Your task to perform on an android device: Empty the shopping cart on newegg. Add "rayovac triple a" to the cart on newegg Image 0: 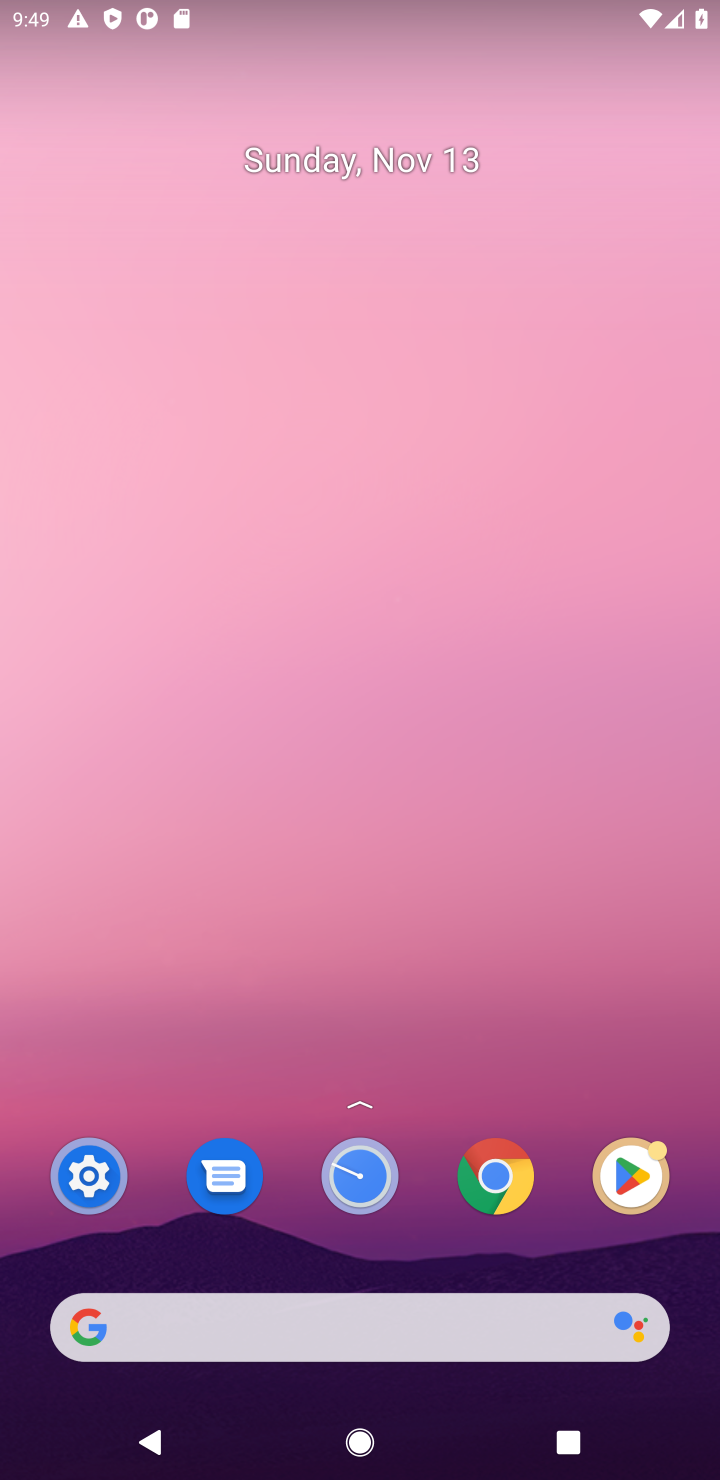
Step 0: press home button
Your task to perform on an android device: Empty the shopping cart on newegg. Add "rayovac triple a" to the cart on newegg Image 1: 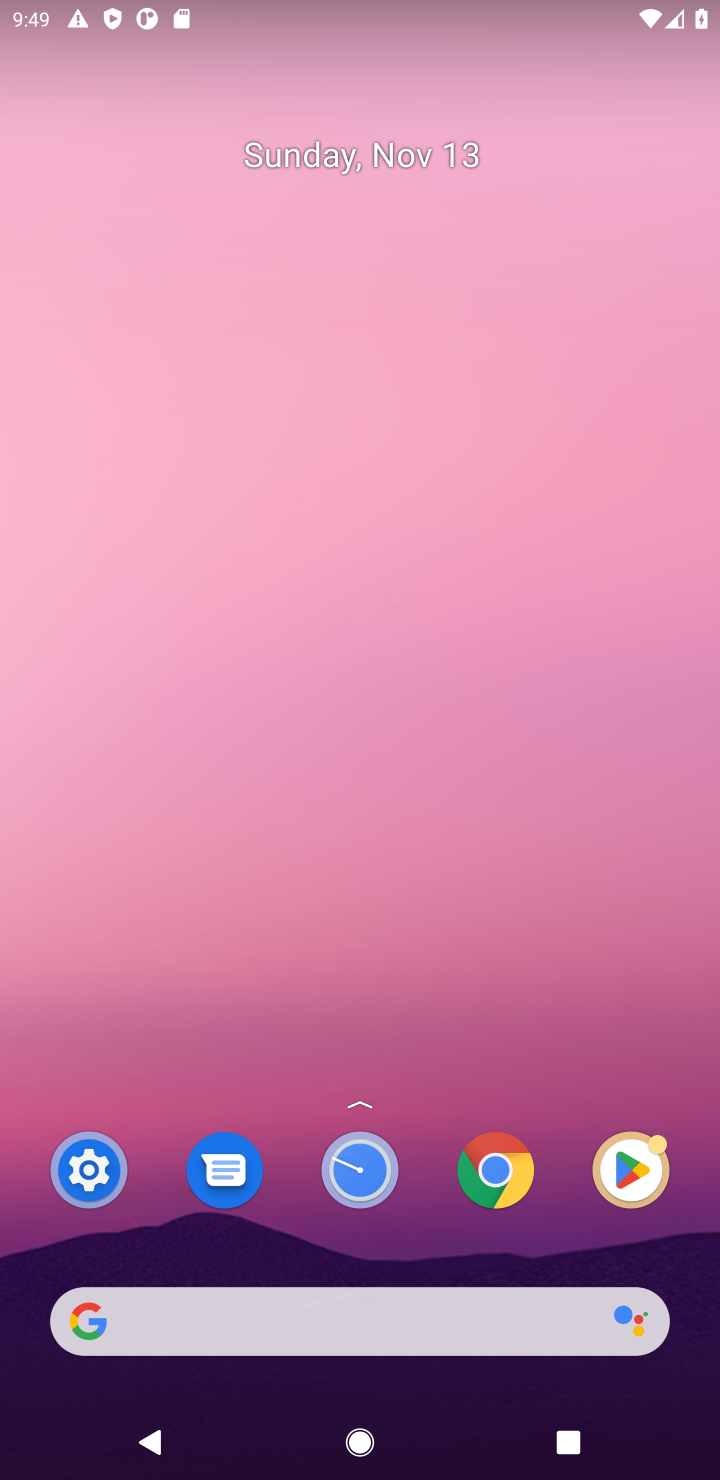
Step 1: click (241, 1337)
Your task to perform on an android device: Empty the shopping cart on newegg. Add "rayovac triple a" to the cart on newegg Image 2: 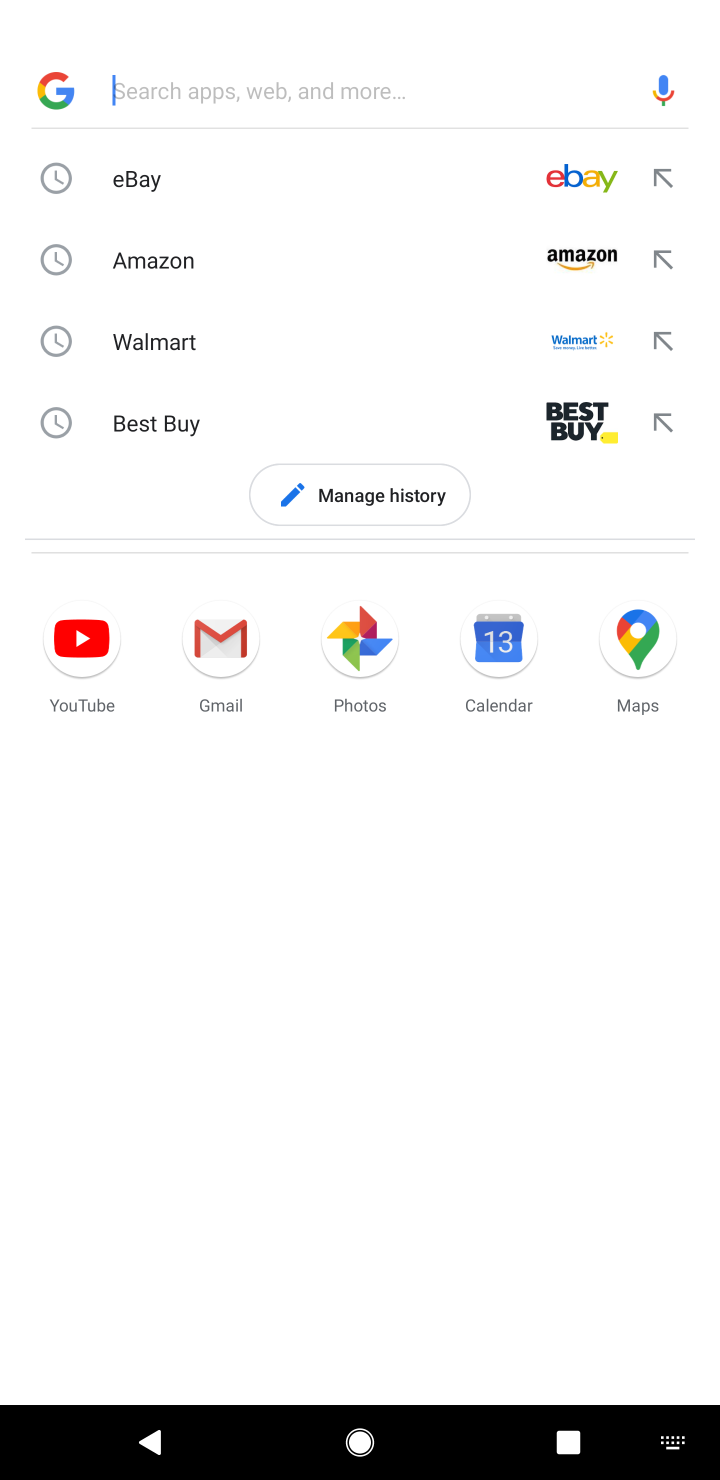
Step 2: type "newegg"
Your task to perform on an android device: Empty the shopping cart on newegg. Add "rayovac triple a" to the cart on newegg Image 3: 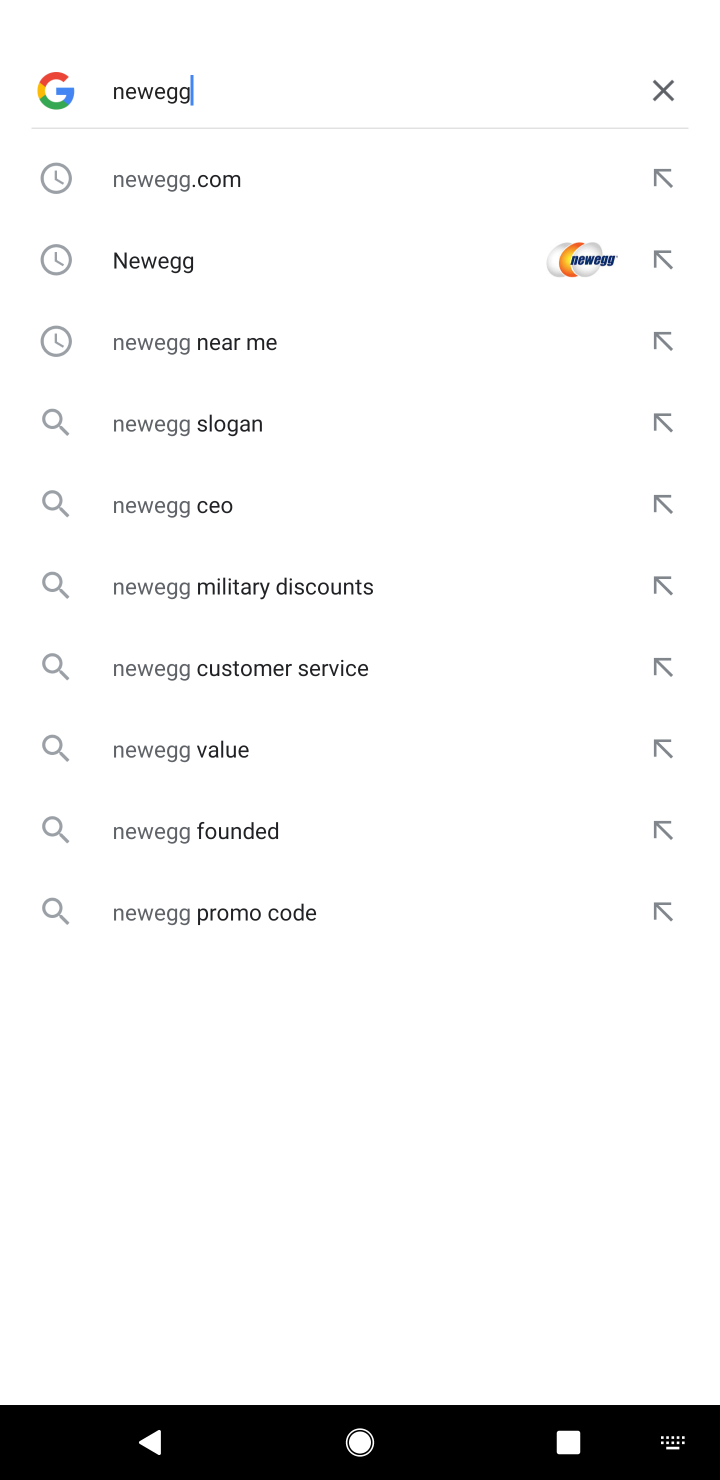
Step 3: click (273, 249)
Your task to perform on an android device: Empty the shopping cart on newegg. Add "rayovac triple a" to the cart on newegg Image 4: 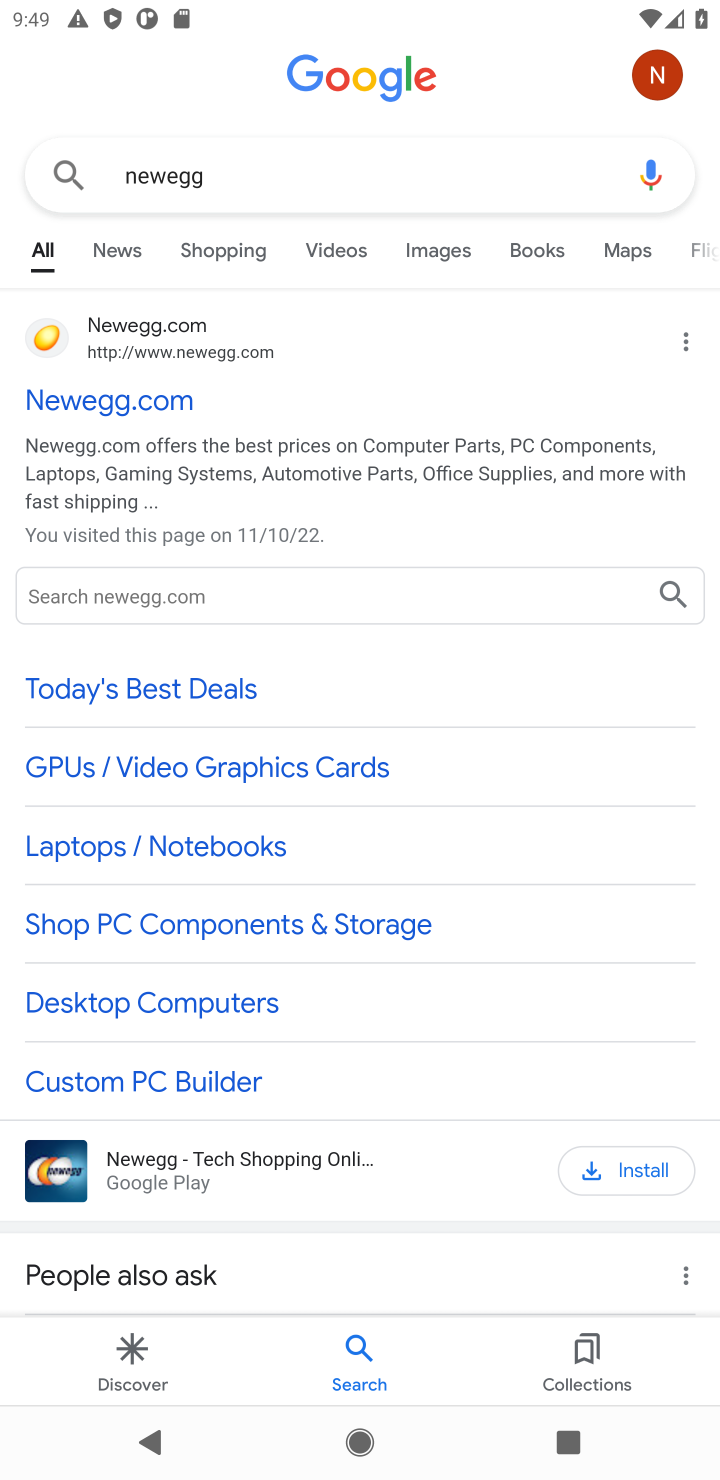
Step 4: click (183, 393)
Your task to perform on an android device: Empty the shopping cart on newegg. Add "rayovac triple a" to the cart on newegg Image 5: 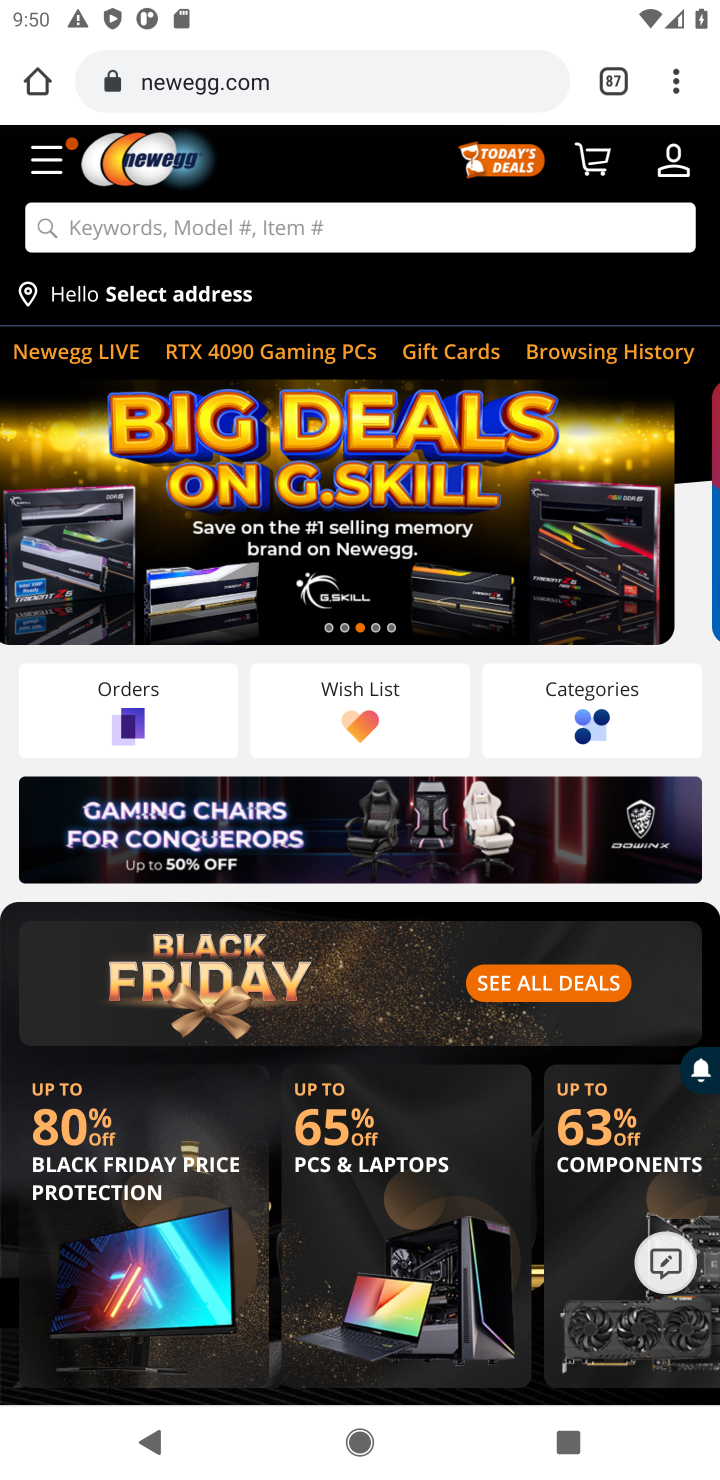
Step 5: click (490, 235)
Your task to perform on an android device: Empty the shopping cart on newegg. Add "rayovac triple a" to the cart on newegg Image 6: 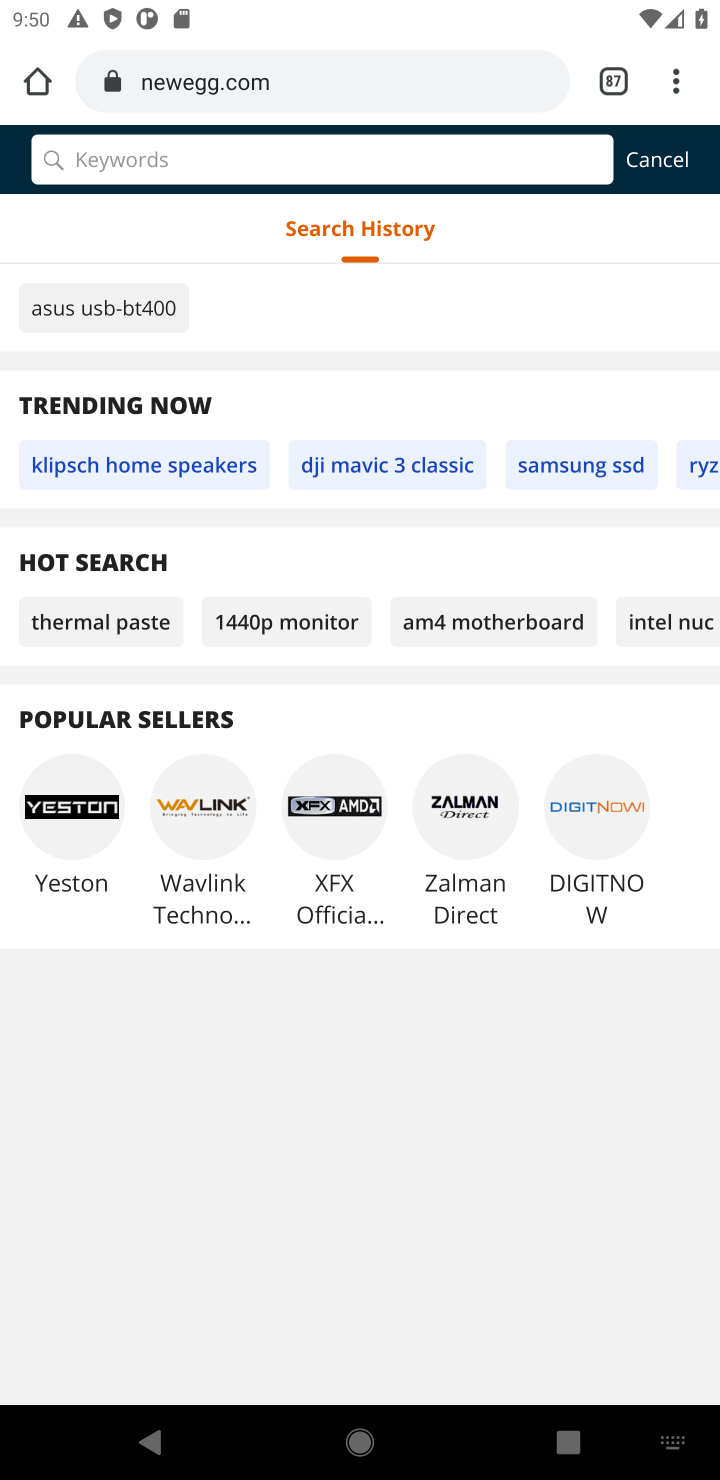
Step 6: task complete